Your task to perform on an android device: turn pop-ups off in chrome Image 0: 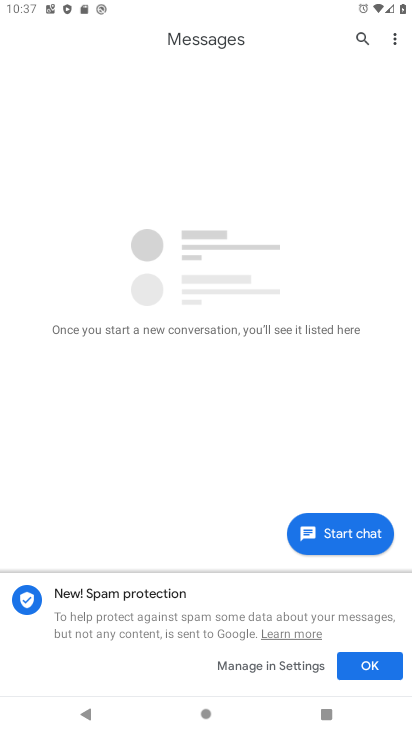
Step 0: press home button
Your task to perform on an android device: turn pop-ups off in chrome Image 1: 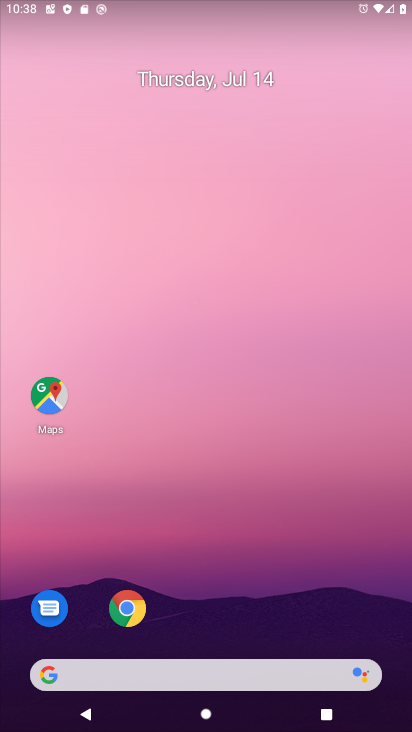
Step 1: click (129, 610)
Your task to perform on an android device: turn pop-ups off in chrome Image 2: 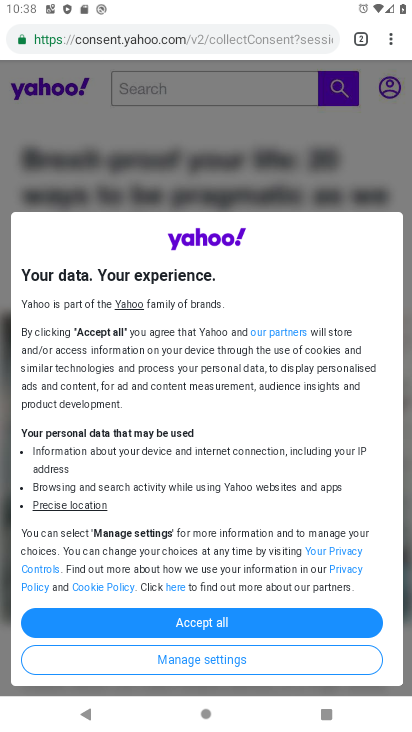
Step 2: click (391, 43)
Your task to perform on an android device: turn pop-ups off in chrome Image 3: 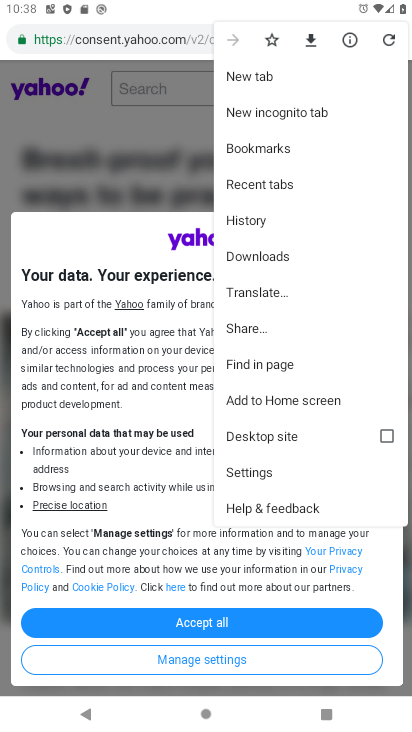
Step 3: click (246, 470)
Your task to perform on an android device: turn pop-ups off in chrome Image 4: 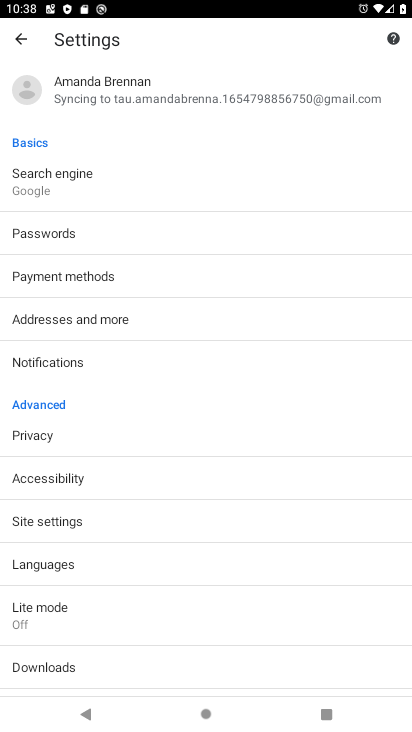
Step 4: click (52, 517)
Your task to perform on an android device: turn pop-ups off in chrome Image 5: 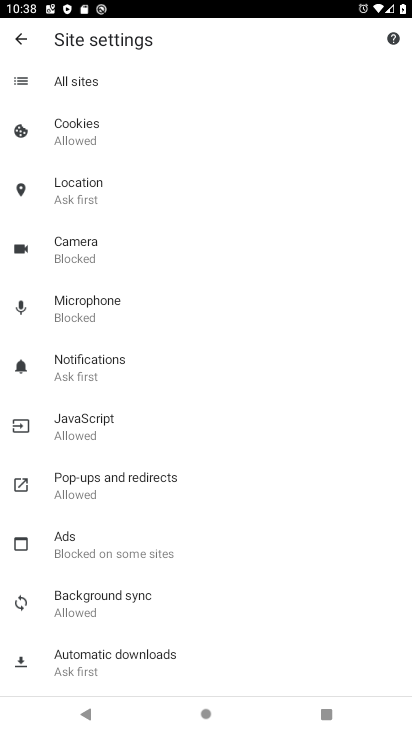
Step 5: click (89, 477)
Your task to perform on an android device: turn pop-ups off in chrome Image 6: 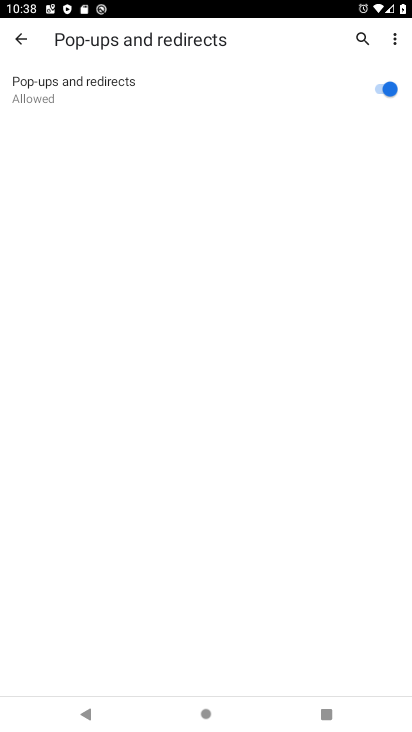
Step 6: click (382, 86)
Your task to perform on an android device: turn pop-ups off in chrome Image 7: 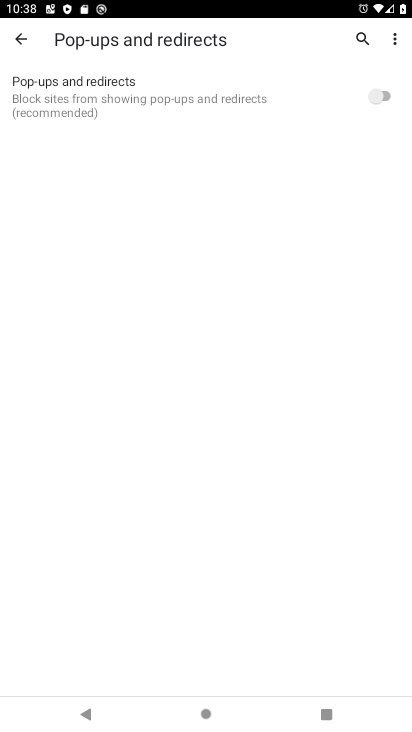
Step 7: task complete